Your task to perform on an android device: Open the map Image 0: 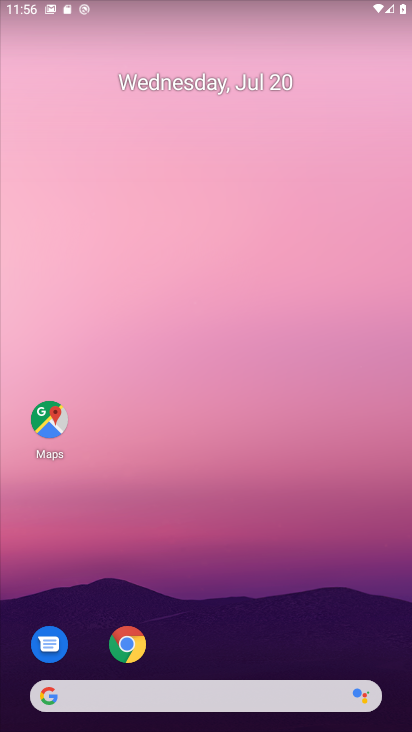
Step 0: click (40, 424)
Your task to perform on an android device: Open the map Image 1: 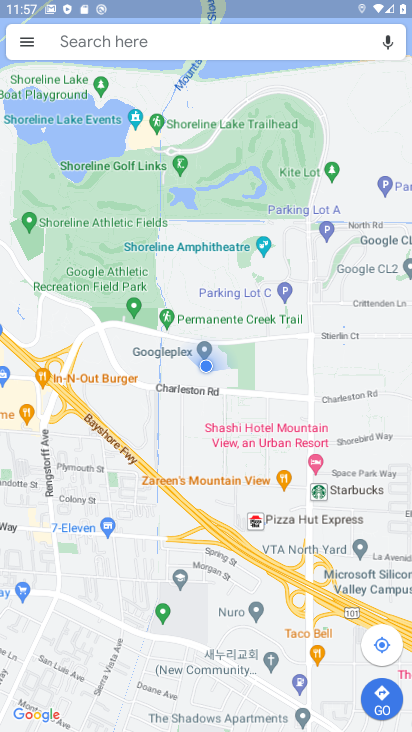
Step 1: task complete